Your task to perform on an android device: Open Google Maps Image 0: 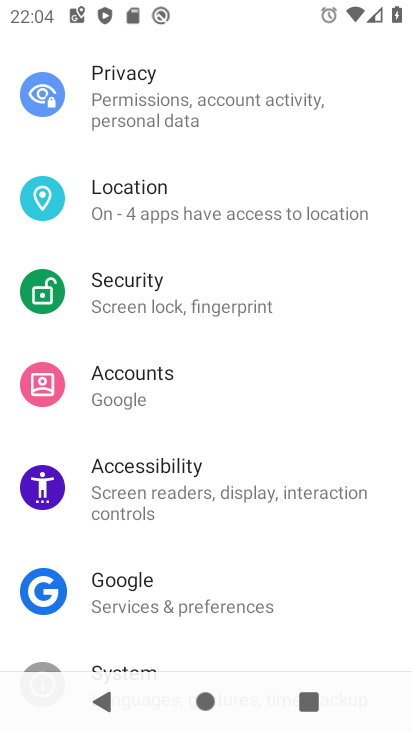
Step 0: press home button
Your task to perform on an android device: Open Google Maps Image 1: 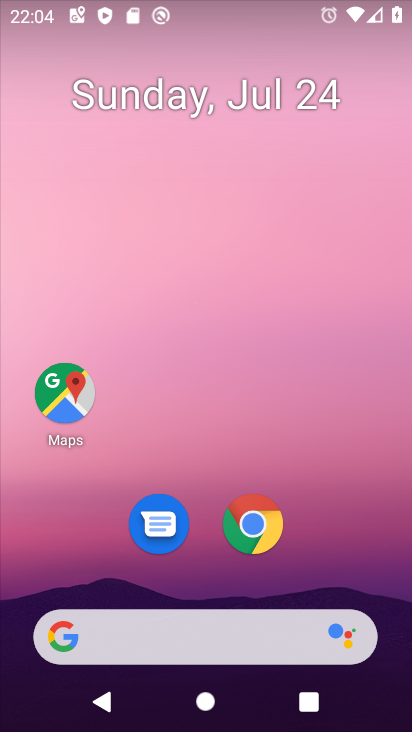
Step 1: click (76, 402)
Your task to perform on an android device: Open Google Maps Image 2: 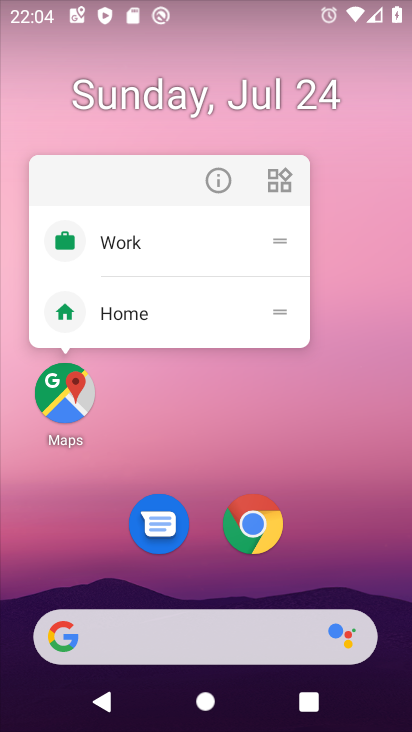
Step 2: click (67, 425)
Your task to perform on an android device: Open Google Maps Image 3: 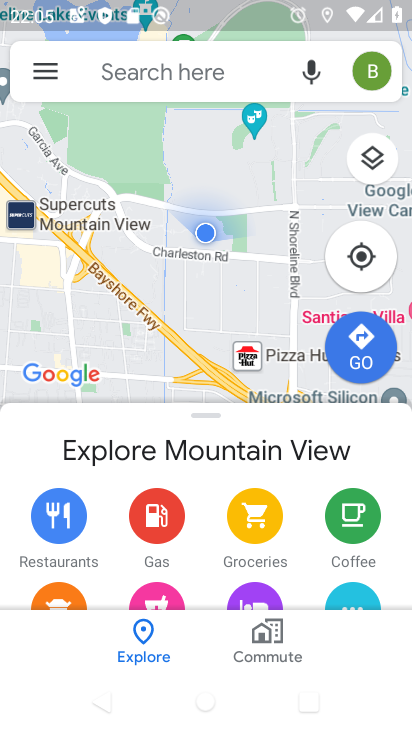
Step 3: task complete